Your task to perform on an android device: turn on showing notifications on the lock screen Image 0: 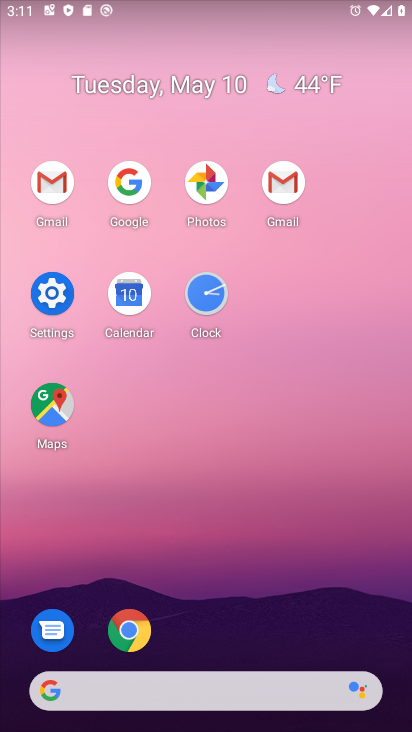
Step 0: click (55, 281)
Your task to perform on an android device: turn on showing notifications on the lock screen Image 1: 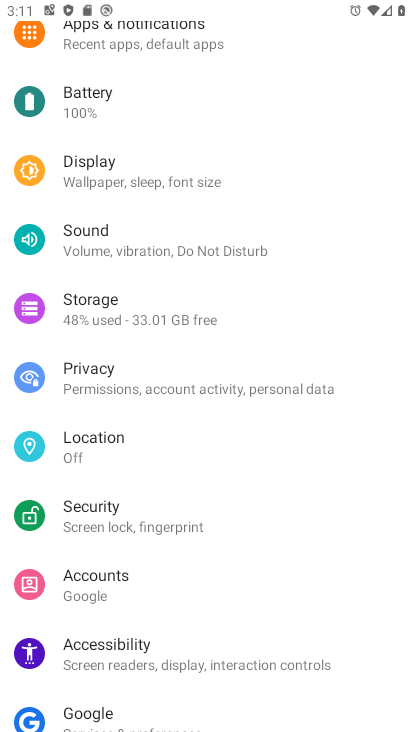
Step 1: drag from (277, 136) to (265, 537)
Your task to perform on an android device: turn on showing notifications on the lock screen Image 2: 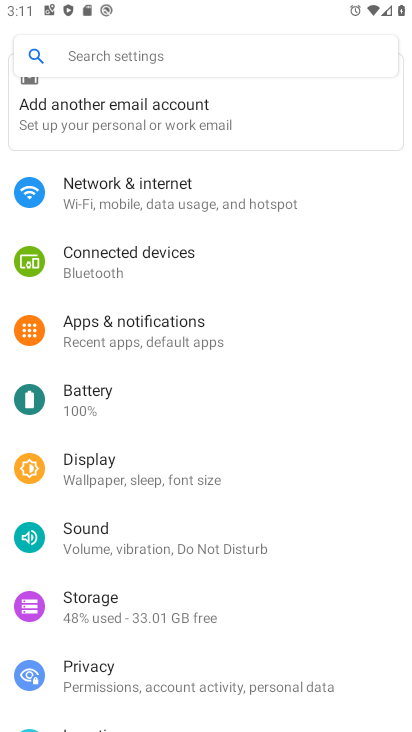
Step 2: click (199, 322)
Your task to perform on an android device: turn on showing notifications on the lock screen Image 3: 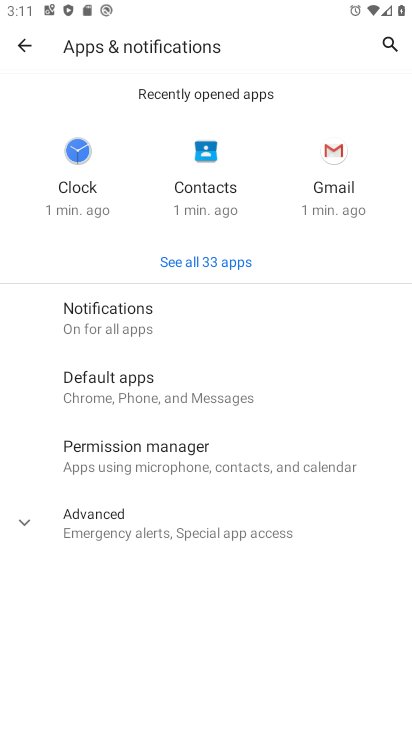
Step 3: click (203, 331)
Your task to perform on an android device: turn on showing notifications on the lock screen Image 4: 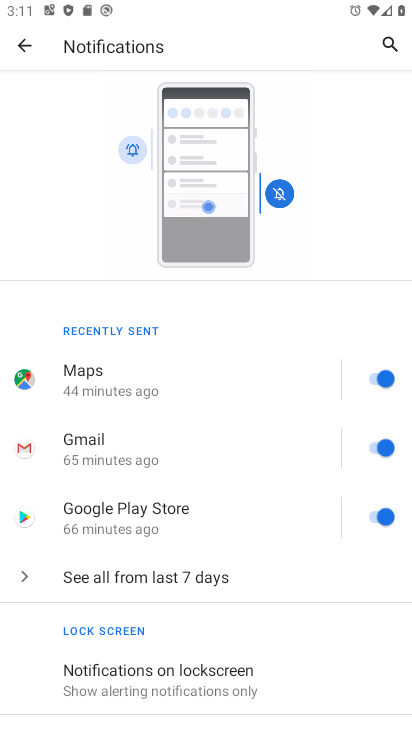
Step 4: click (204, 672)
Your task to perform on an android device: turn on showing notifications on the lock screen Image 5: 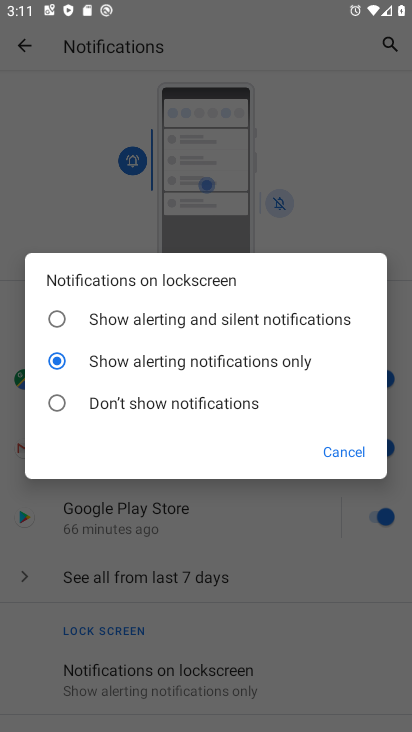
Step 5: click (217, 310)
Your task to perform on an android device: turn on showing notifications on the lock screen Image 6: 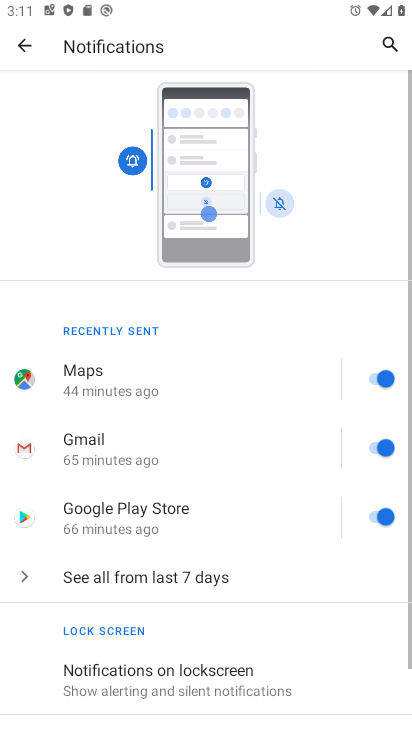
Step 6: task complete